Your task to perform on an android device: Open Google Chrome and open the bookmarks view Image 0: 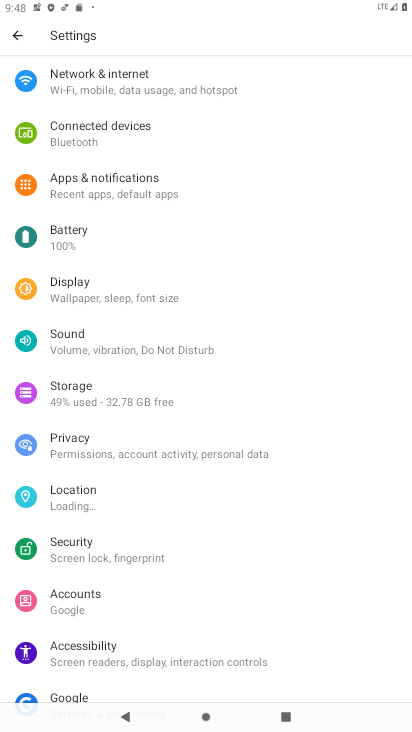
Step 0: press home button
Your task to perform on an android device: Open Google Chrome and open the bookmarks view Image 1: 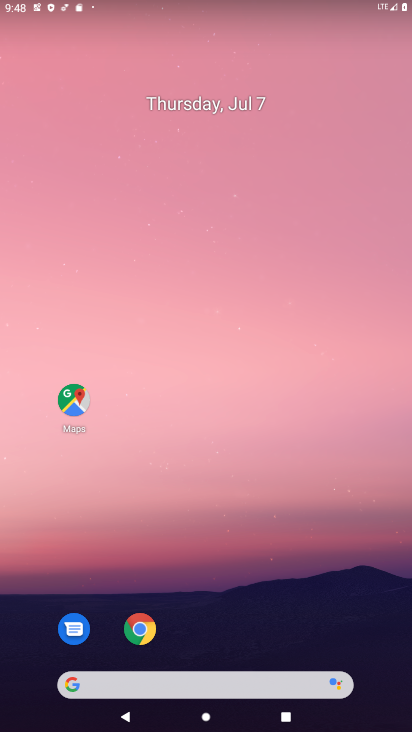
Step 1: drag from (113, 659) to (159, 101)
Your task to perform on an android device: Open Google Chrome and open the bookmarks view Image 2: 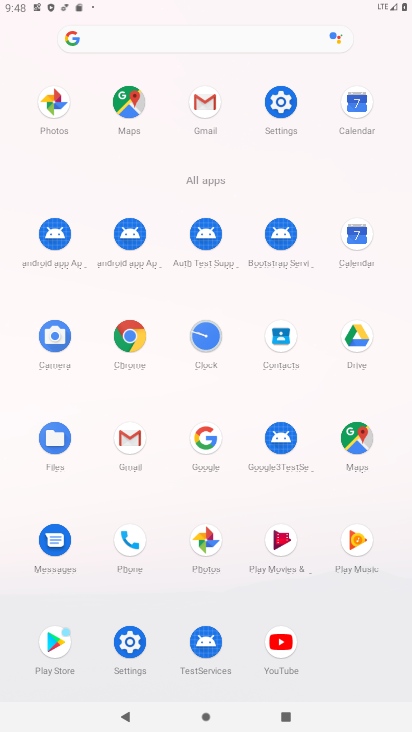
Step 2: click (131, 334)
Your task to perform on an android device: Open Google Chrome and open the bookmarks view Image 3: 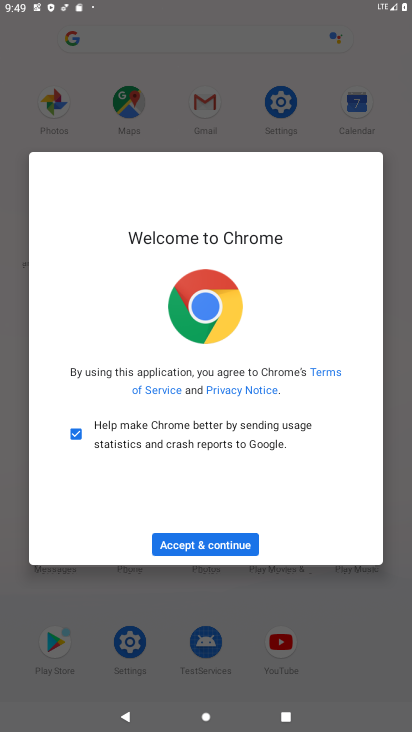
Step 3: click (196, 543)
Your task to perform on an android device: Open Google Chrome and open the bookmarks view Image 4: 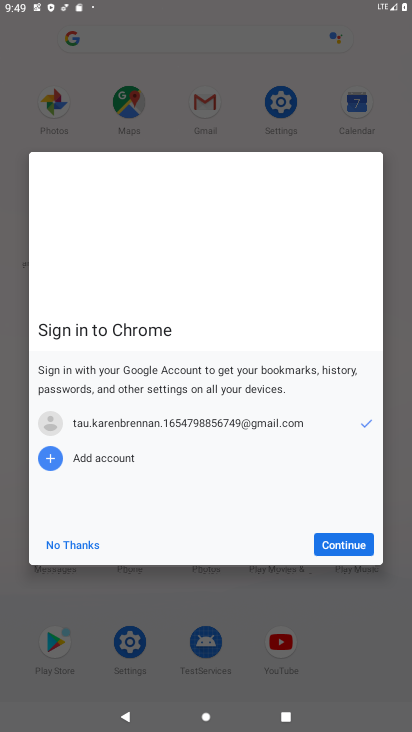
Step 4: click (342, 542)
Your task to perform on an android device: Open Google Chrome and open the bookmarks view Image 5: 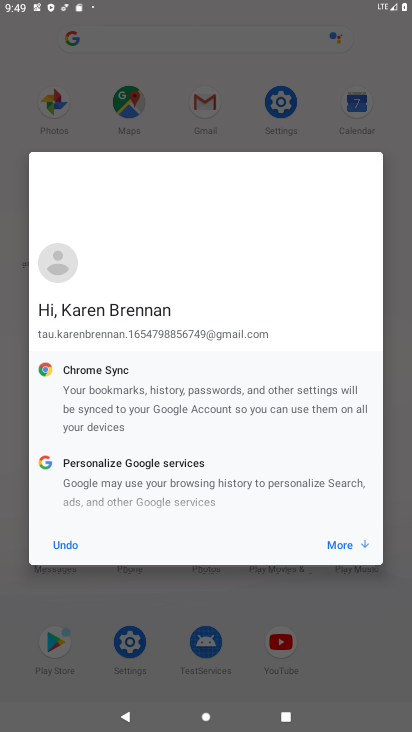
Step 5: click (342, 542)
Your task to perform on an android device: Open Google Chrome and open the bookmarks view Image 6: 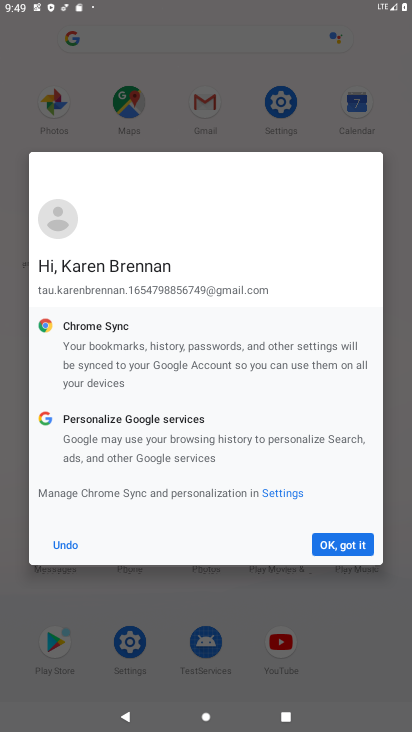
Step 6: click (364, 549)
Your task to perform on an android device: Open Google Chrome and open the bookmarks view Image 7: 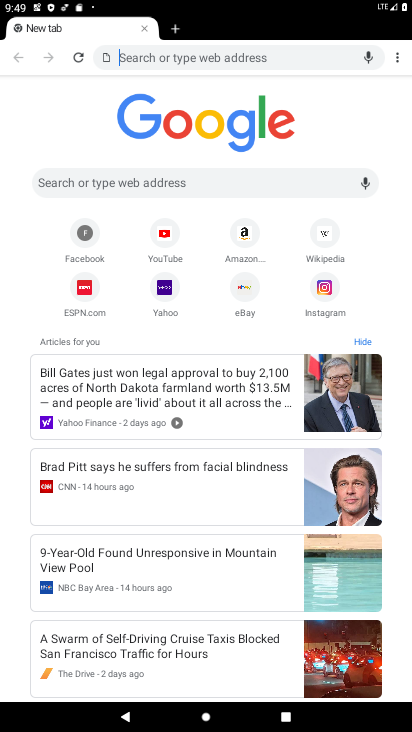
Step 7: task complete